Your task to perform on an android device: star an email in the gmail app Image 0: 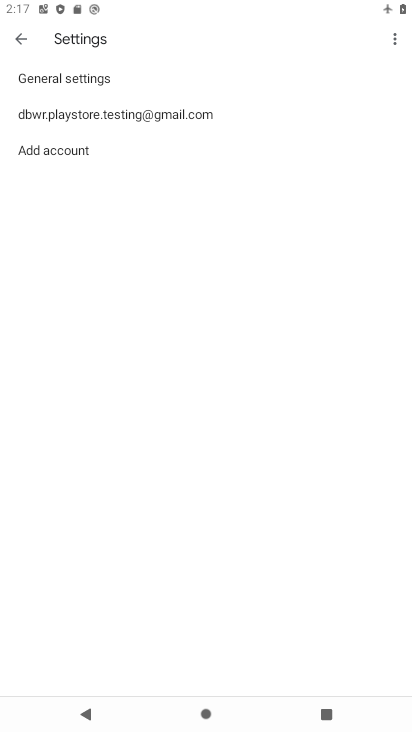
Step 0: press home button
Your task to perform on an android device: star an email in the gmail app Image 1: 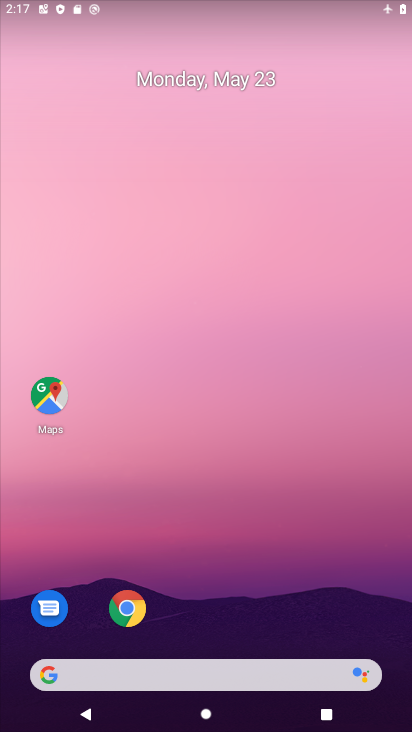
Step 1: drag from (258, 649) to (233, 187)
Your task to perform on an android device: star an email in the gmail app Image 2: 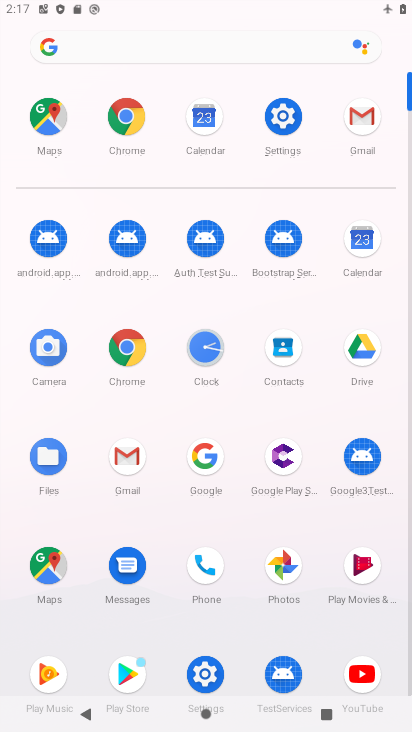
Step 2: click (121, 461)
Your task to perform on an android device: star an email in the gmail app Image 3: 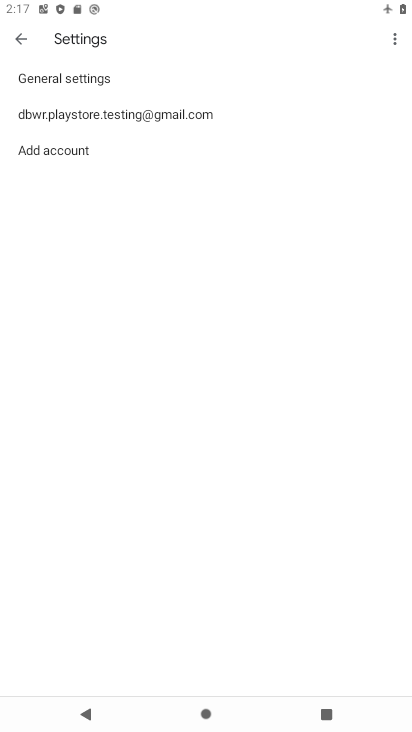
Step 3: press home button
Your task to perform on an android device: star an email in the gmail app Image 4: 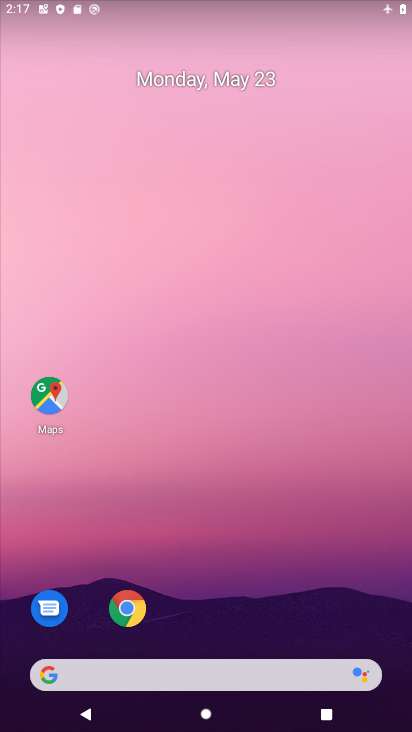
Step 4: drag from (203, 653) to (187, 51)
Your task to perform on an android device: star an email in the gmail app Image 5: 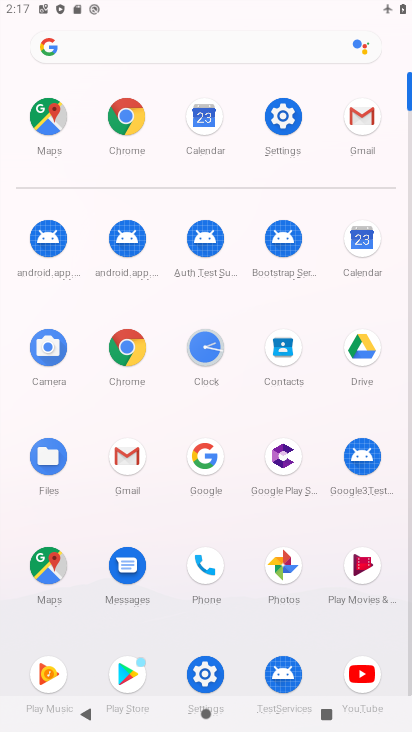
Step 5: click (127, 467)
Your task to perform on an android device: star an email in the gmail app Image 6: 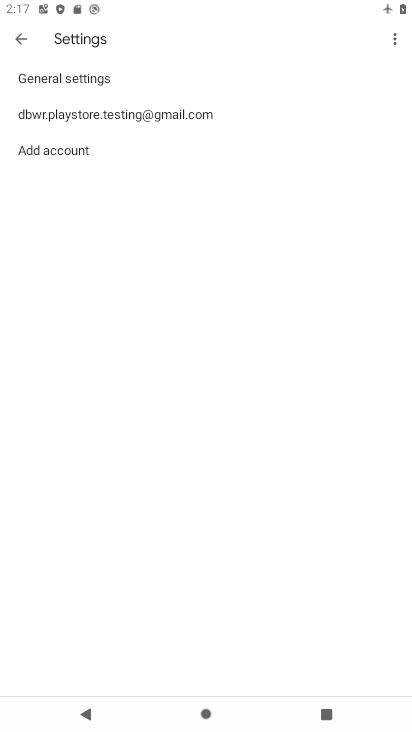
Step 6: click (21, 40)
Your task to perform on an android device: star an email in the gmail app Image 7: 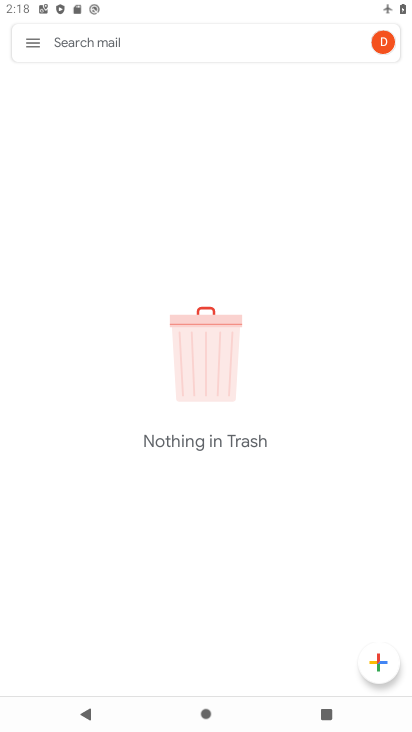
Step 7: task complete